Your task to perform on an android device: Go to wifi settings Image 0: 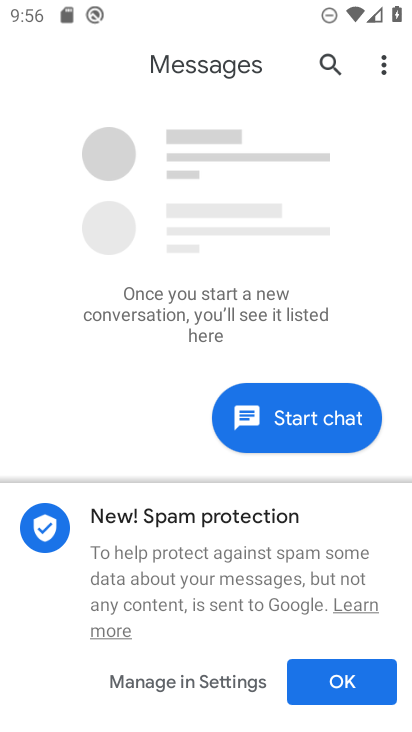
Step 0: press home button
Your task to perform on an android device: Go to wifi settings Image 1: 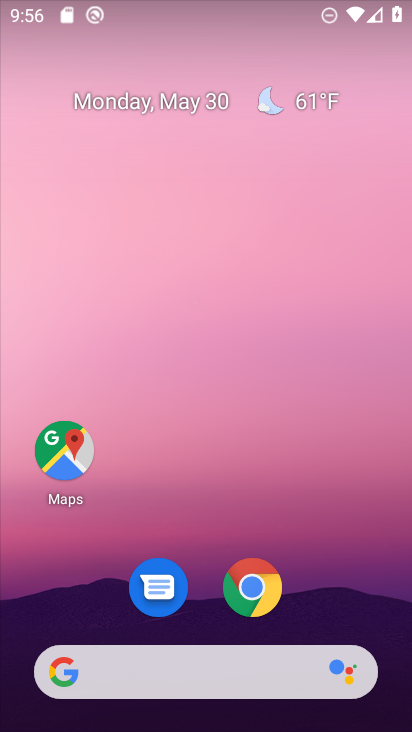
Step 1: drag from (226, 631) to (242, 1)
Your task to perform on an android device: Go to wifi settings Image 2: 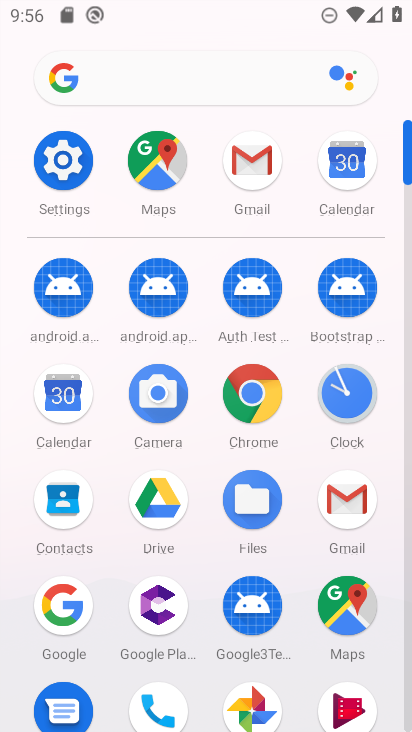
Step 2: click (79, 150)
Your task to perform on an android device: Go to wifi settings Image 3: 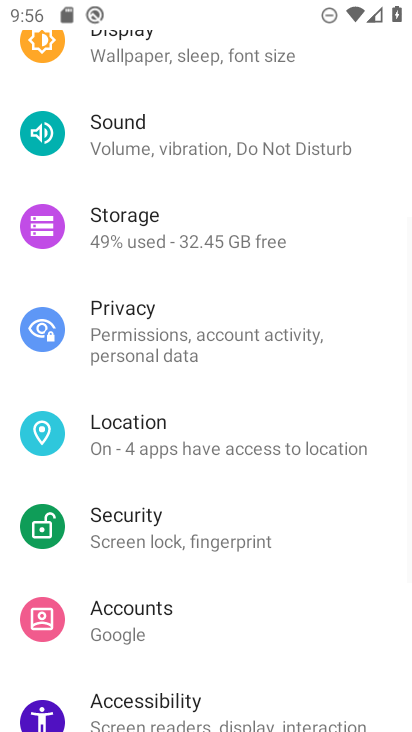
Step 3: drag from (211, 186) to (191, 629)
Your task to perform on an android device: Go to wifi settings Image 4: 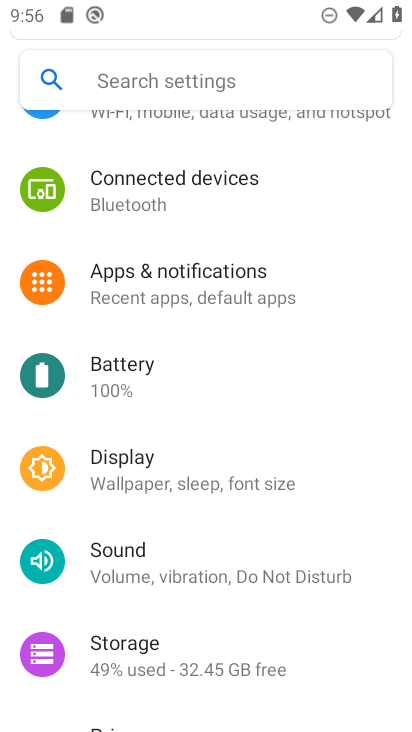
Step 4: drag from (155, 160) to (132, 668)
Your task to perform on an android device: Go to wifi settings Image 5: 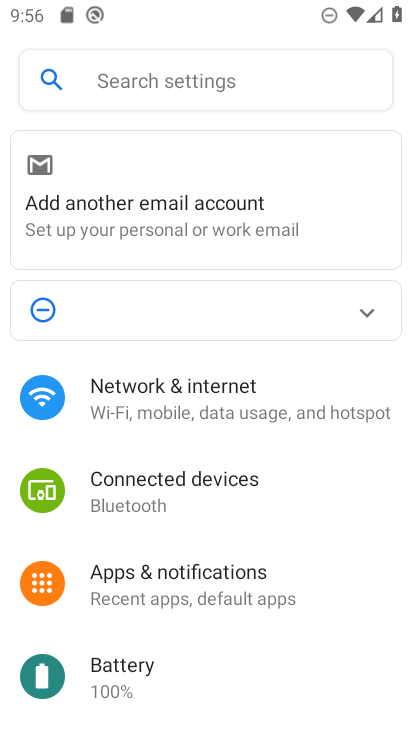
Step 5: click (131, 387)
Your task to perform on an android device: Go to wifi settings Image 6: 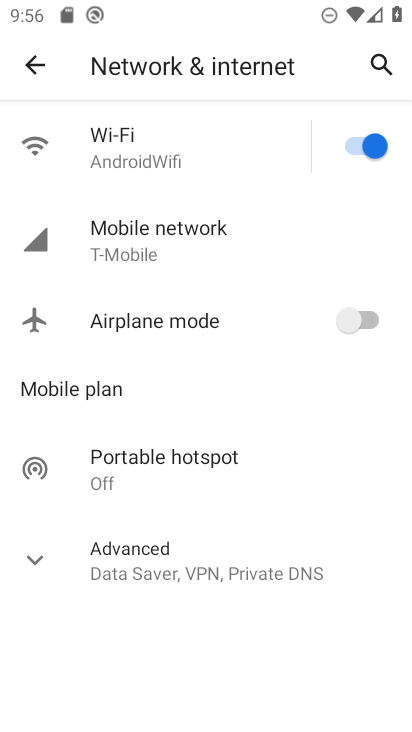
Step 6: click (97, 152)
Your task to perform on an android device: Go to wifi settings Image 7: 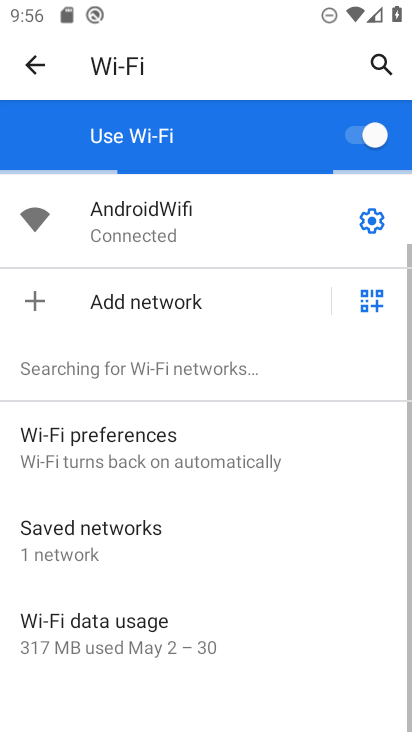
Step 7: task complete